Your task to perform on an android device: change notifications settings Image 0: 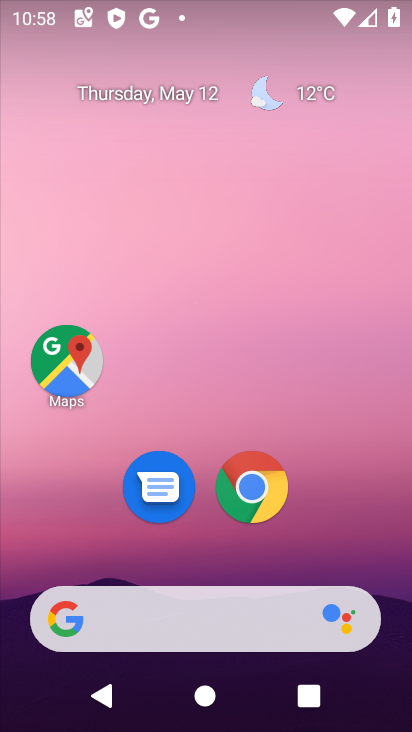
Step 0: drag from (369, 569) to (348, 17)
Your task to perform on an android device: change notifications settings Image 1: 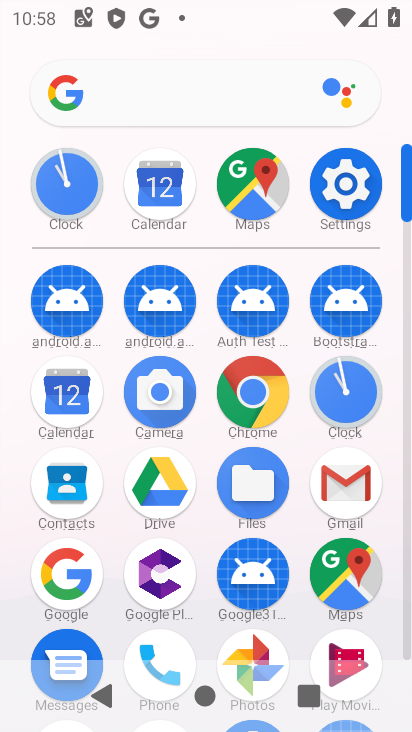
Step 1: click (348, 194)
Your task to perform on an android device: change notifications settings Image 2: 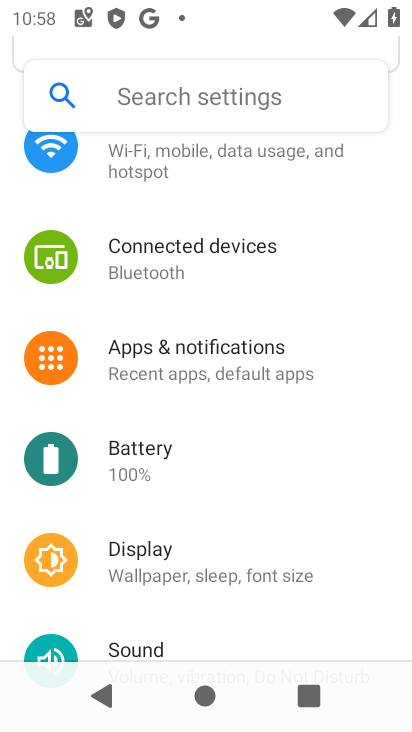
Step 2: click (184, 354)
Your task to perform on an android device: change notifications settings Image 3: 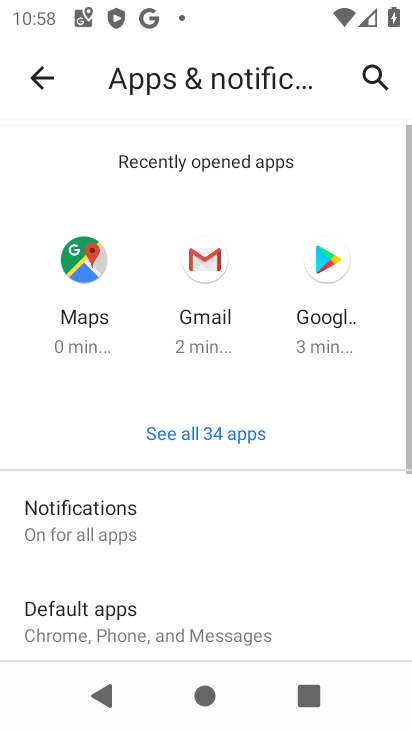
Step 3: click (90, 503)
Your task to perform on an android device: change notifications settings Image 4: 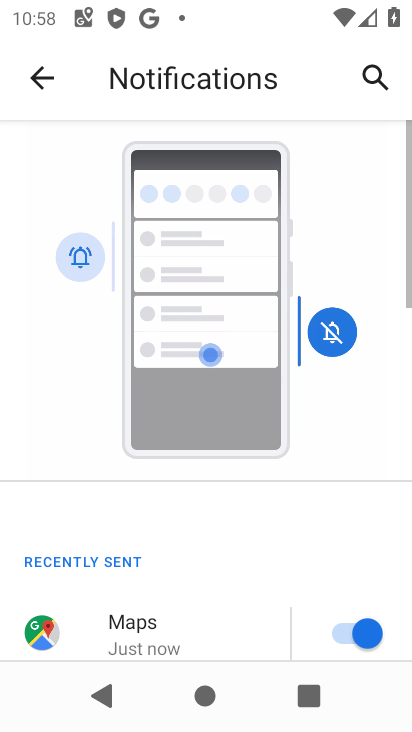
Step 4: drag from (180, 536) to (164, 51)
Your task to perform on an android device: change notifications settings Image 5: 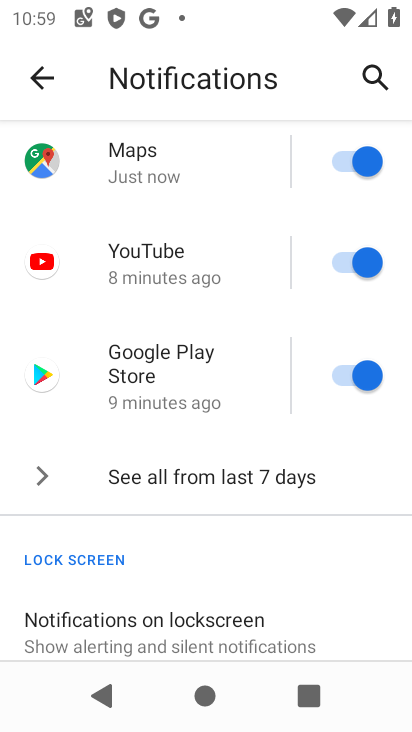
Step 5: click (154, 486)
Your task to perform on an android device: change notifications settings Image 6: 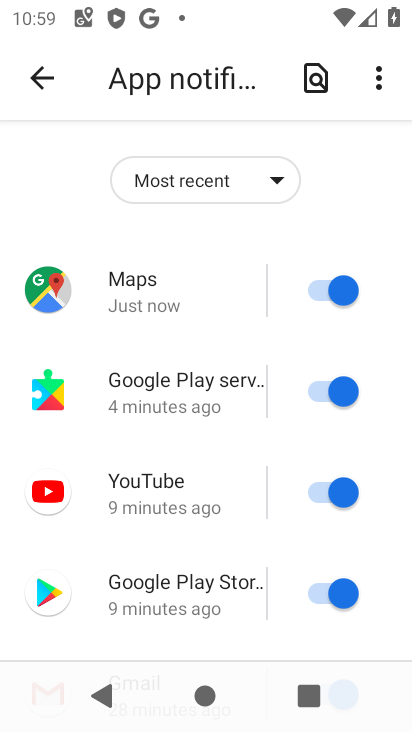
Step 6: click (279, 178)
Your task to perform on an android device: change notifications settings Image 7: 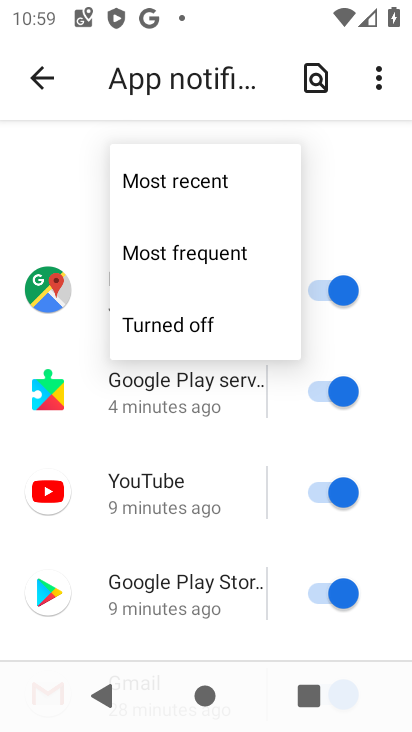
Step 7: click (162, 324)
Your task to perform on an android device: change notifications settings Image 8: 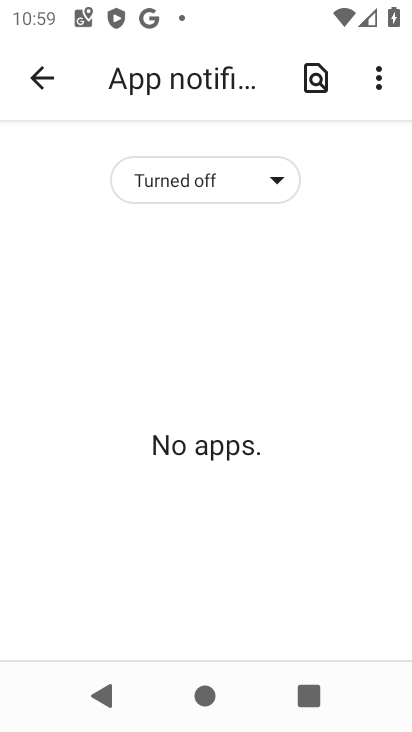
Step 8: task complete